Your task to perform on an android device: turn off data saver in the chrome app Image 0: 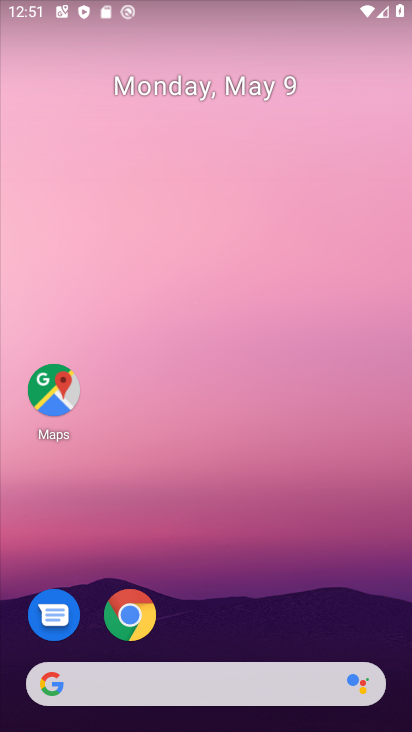
Step 0: click (132, 612)
Your task to perform on an android device: turn off data saver in the chrome app Image 1: 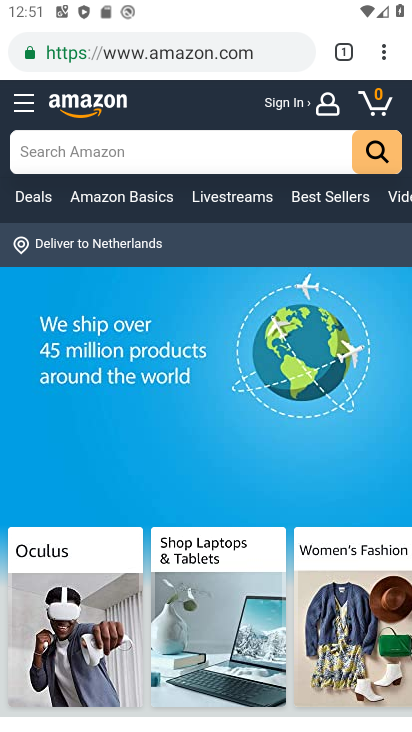
Step 1: click (384, 53)
Your task to perform on an android device: turn off data saver in the chrome app Image 2: 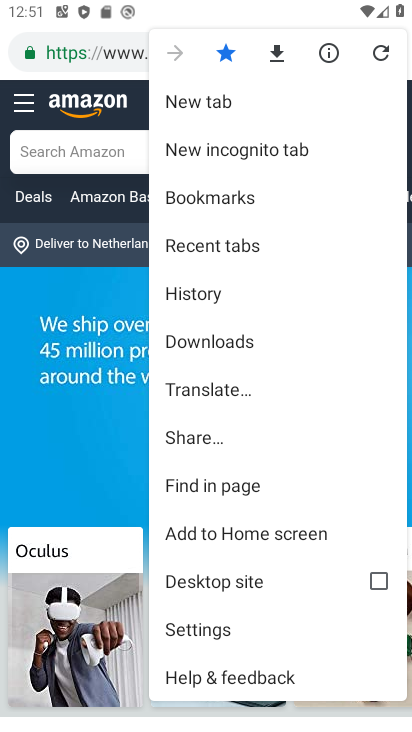
Step 2: click (190, 627)
Your task to perform on an android device: turn off data saver in the chrome app Image 3: 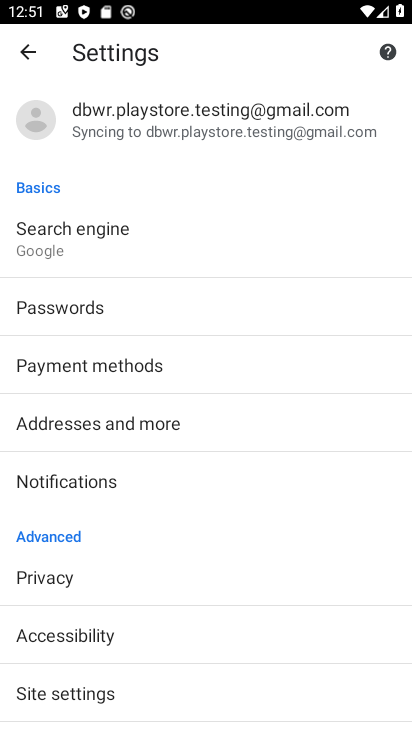
Step 3: drag from (198, 464) to (217, 407)
Your task to perform on an android device: turn off data saver in the chrome app Image 4: 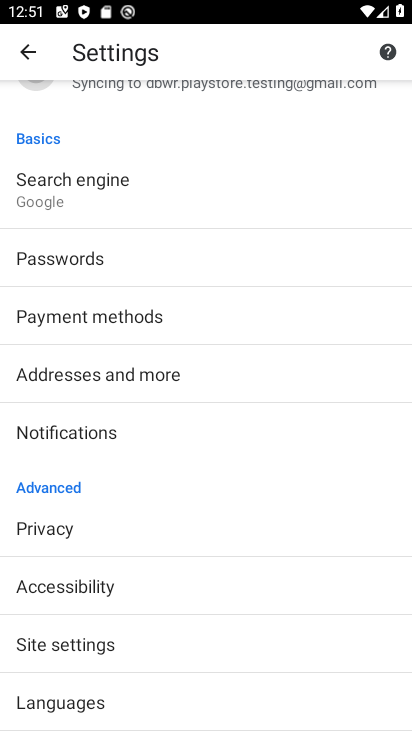
Step 4: drag from (166, 496) to (218, 357)
Your task to perform on an android device: turn off data saver in the chrome app Image 5: 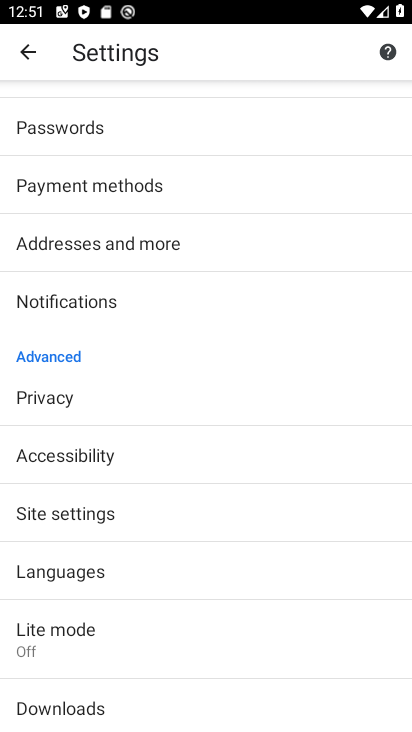
Step 5: drag from (126, 500) to (195, 396)
Your task to perform on an android device: turn off data saver in the chrome app Image 6: 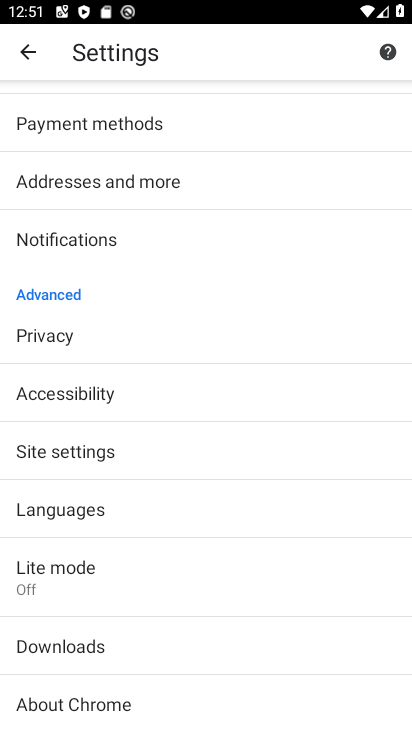
Step 6: click (78, 564)
Your task to perform on an android device: turn off data saver in the chrome app Image 7: 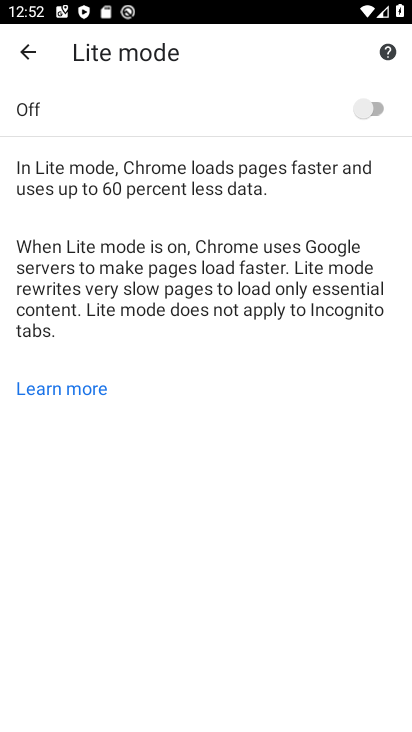
Step 7: task complete